Your task to perform on an android device: all mails in gmail Image 0: 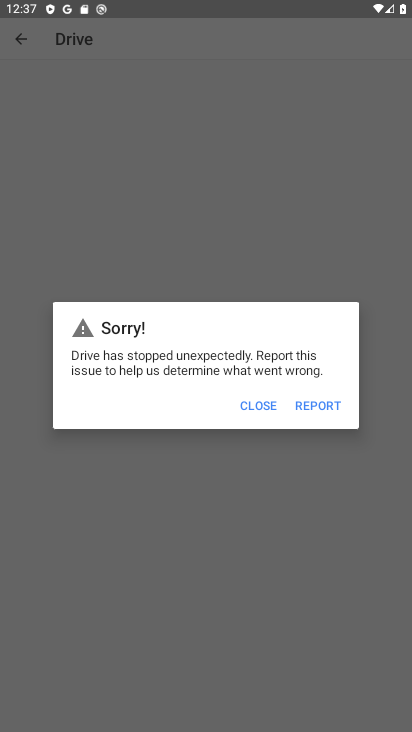
Step 0: press home button
Your task to perform on an android device: all mails in gmail Image 1: 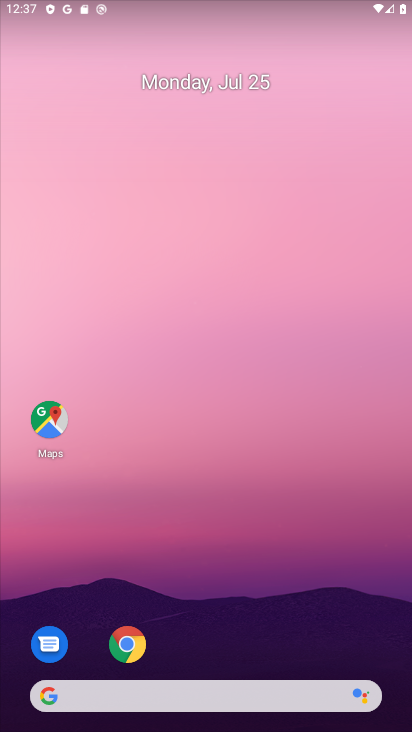
Step 1: drag from (278, 630) to (310, 18)
Your task to perform on an android device: all mails in gmail Image 2: 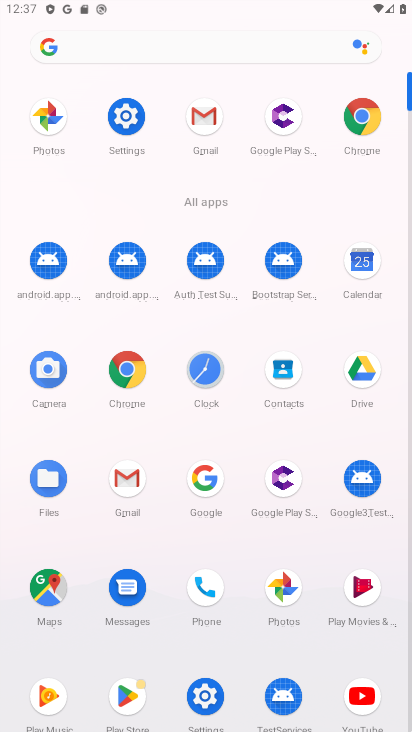
Step 2: click (122, 488)
Your task to perform on an android device: all mails in gmail Image 3: 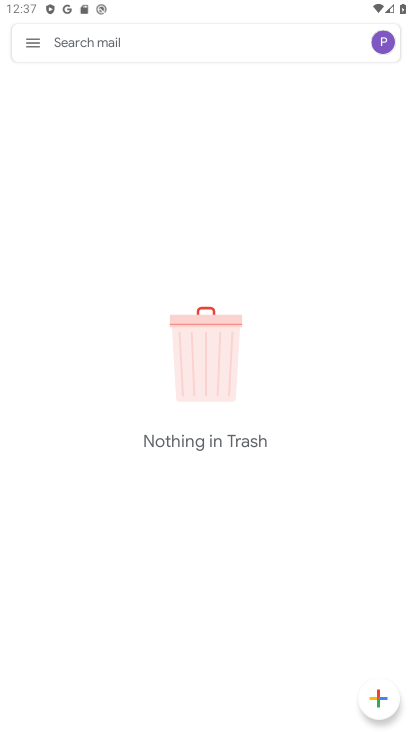
Step 3: click (34, 39)
Your task to perform on an android device: all mails in gmail Image 4: 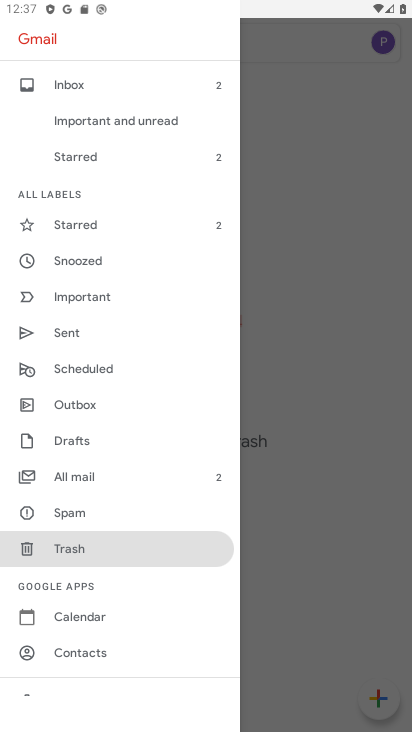
Step 4: click (76, 477)
Your task to perform on an android device: all mails in gmail Image 5: 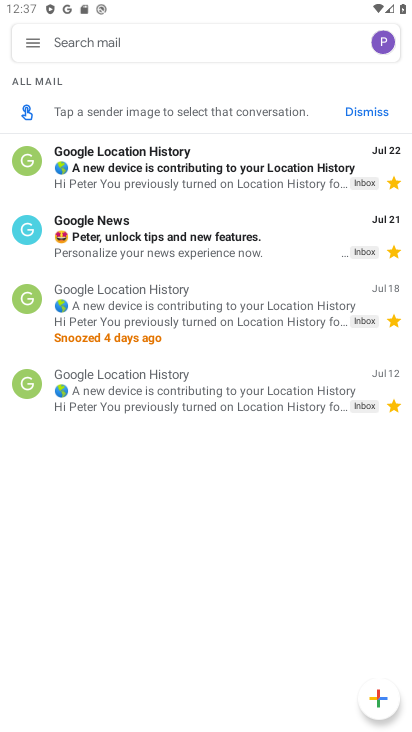
Step 5: task complete